Your task to perform on an android device: open app "Google Keep" (install if not already installed) Image 0: 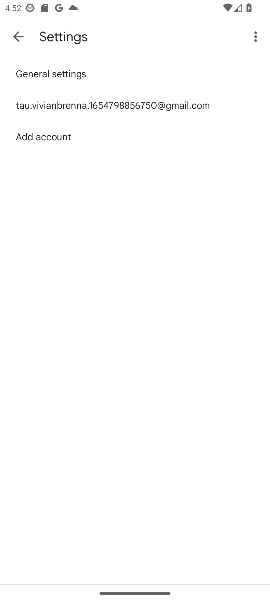
Step 0: press home button
Your task to perform on an android device: open app "Google Keep" (install if not already installed) Image 1: 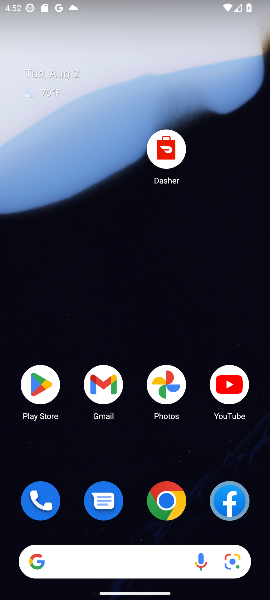
Step 1: click (45, 397)
Your task to perform on an android device: open app "Google Keep" (install if not already installed) Image 2: 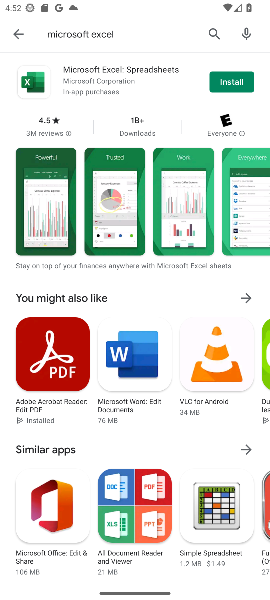
Step 2: click (211, 36)
Your task to perform on an android device: open app "Google Keep" (install if not already installed) Image 3: 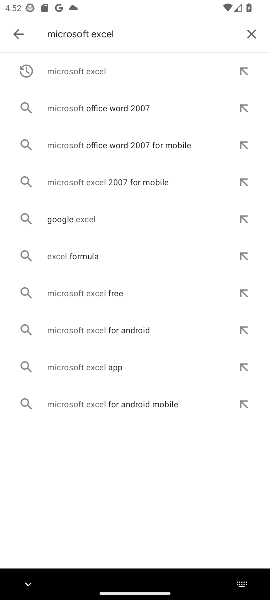
Step 3: click (248, 35)
Your task to perform on an android device: open app "Google Keep" (install if not already installed) Image 4: 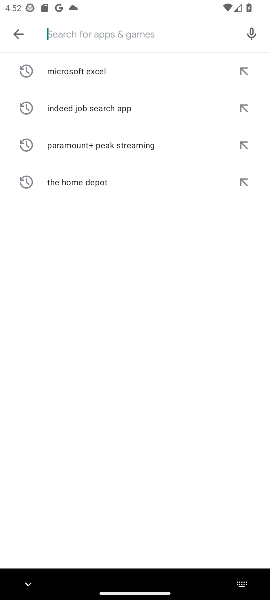
Step 4: type "Google Keep"
Your task to perform on an android device: open app "Google Keep" (install if not already installed) Image 5: 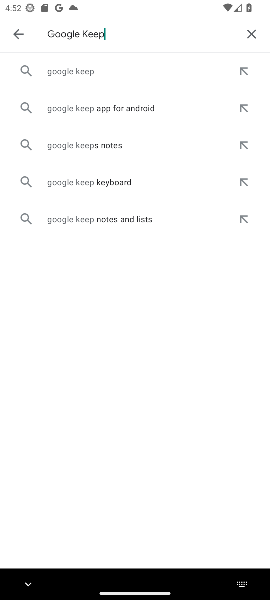
Step 5: click (69, 73)
Your task to perform on an android device: open app "Google Keep" (install if not already installed) Image 6: 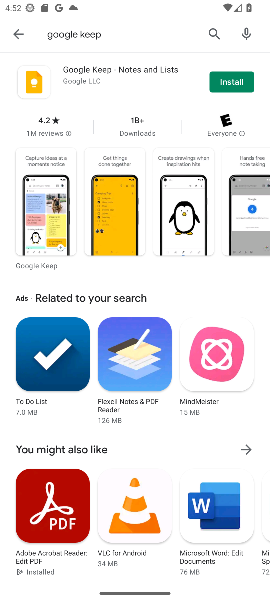
Step 6: click (229, 83)
Your task to perform on an android device: open app "Google Keep" (install if not already installed) Image 7: 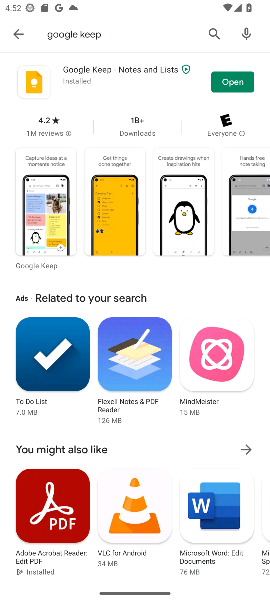
Step 7: click (226, 83)
Your task to perform on an android device: open app "Google Keep" (install if not already installed) Image 8: 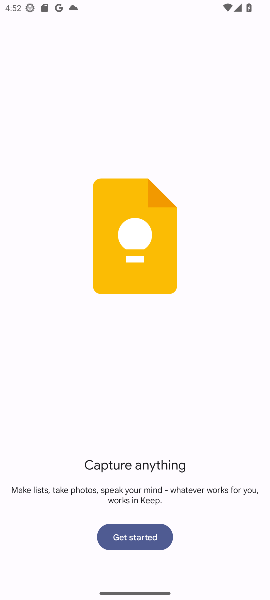
Step 8: task complete